Your task to perform on an android device: toggle notifications settings in the gmail app Image 0: 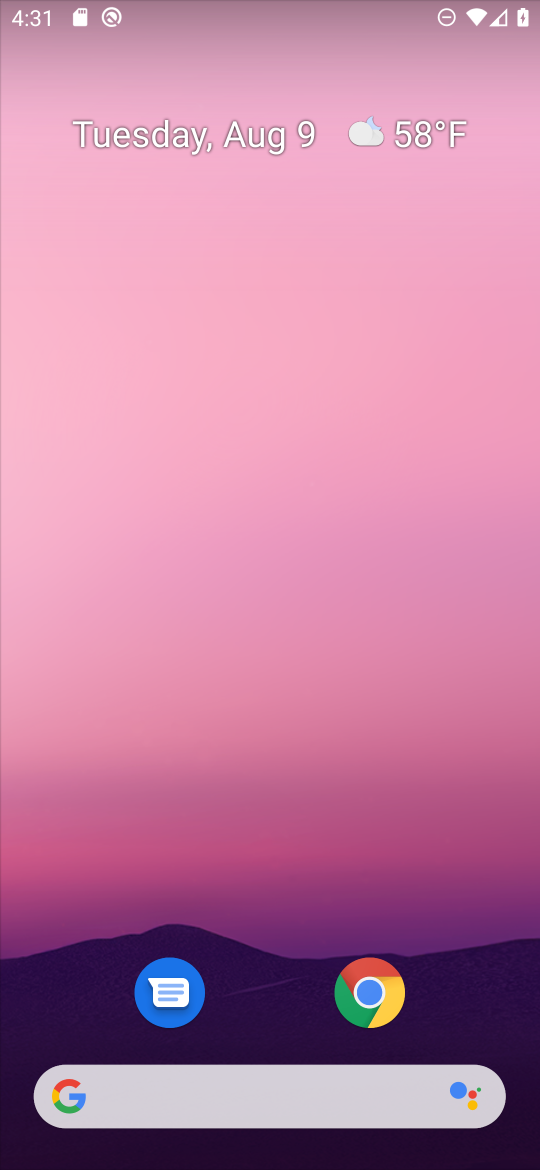
Step 0: drag from (398, 1102) to (382, 185)
Your task to perform on an android device: toggle notifications settings in the gmail app Image 1: 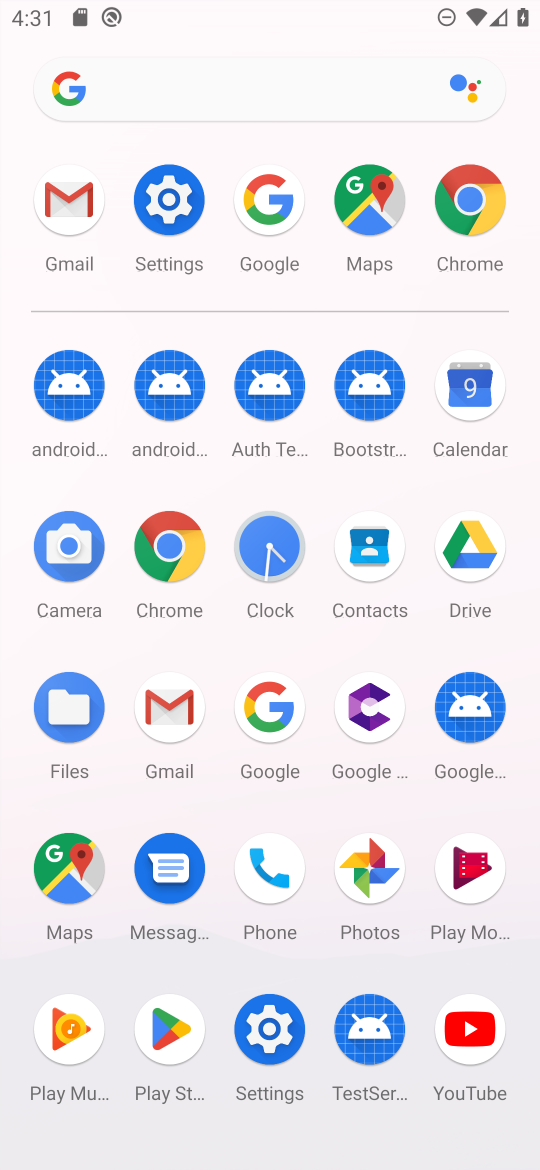
Step 1: click (169, 713)
Your task to perform on an android device: toggle notifications settings in the gmail app Image 2: 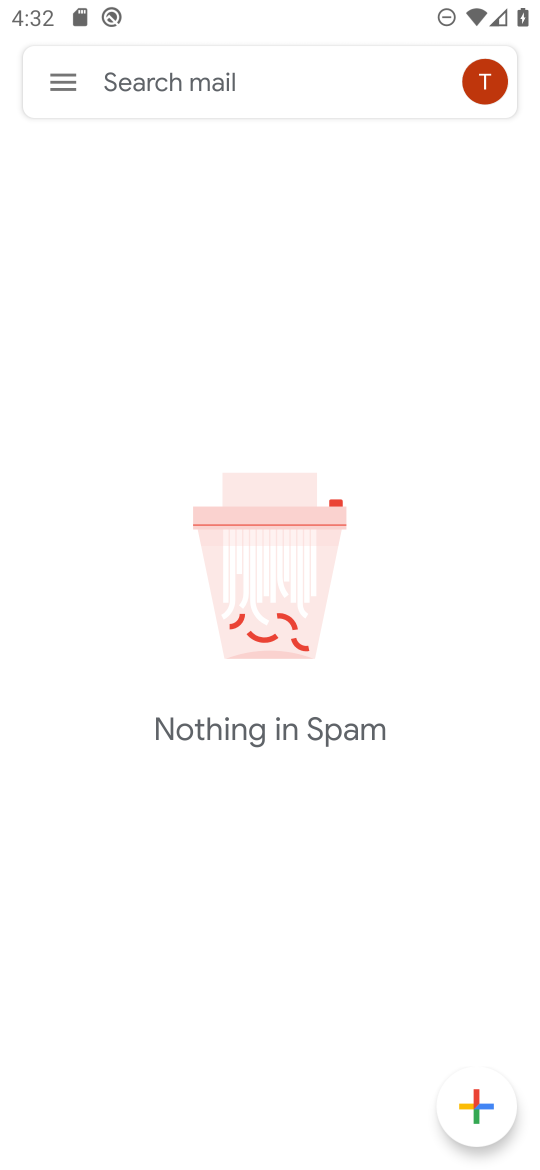
Step 2: click (68, 78)
Your task to perform on an android device: toggle notifications settings in the gmail app Image 3: 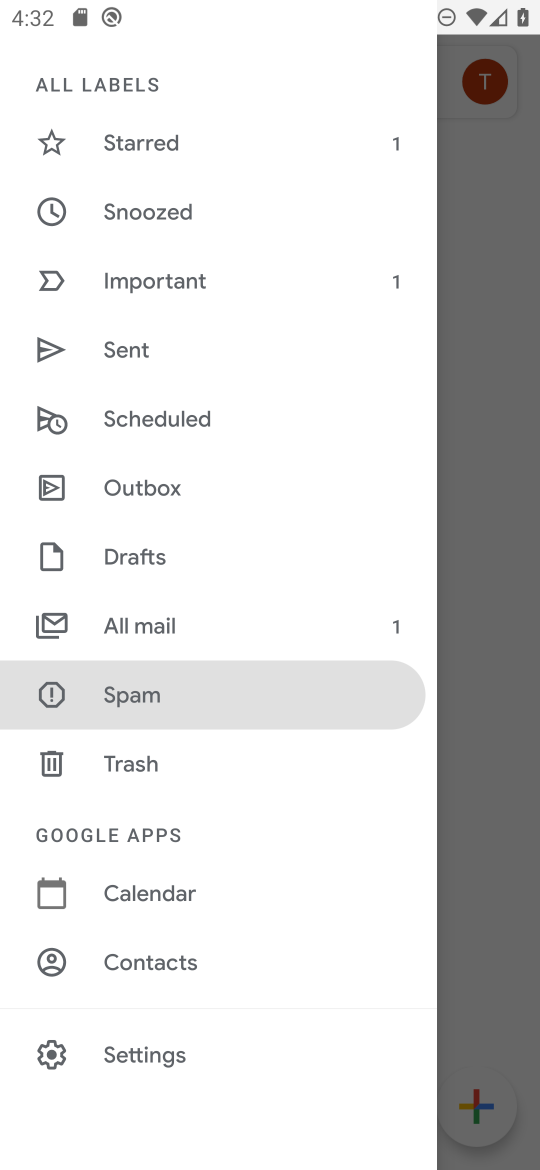
Step 3: click (168, 1054)
Your task to perform on an android device: toggle notifications settings in the gmail app Image 4: 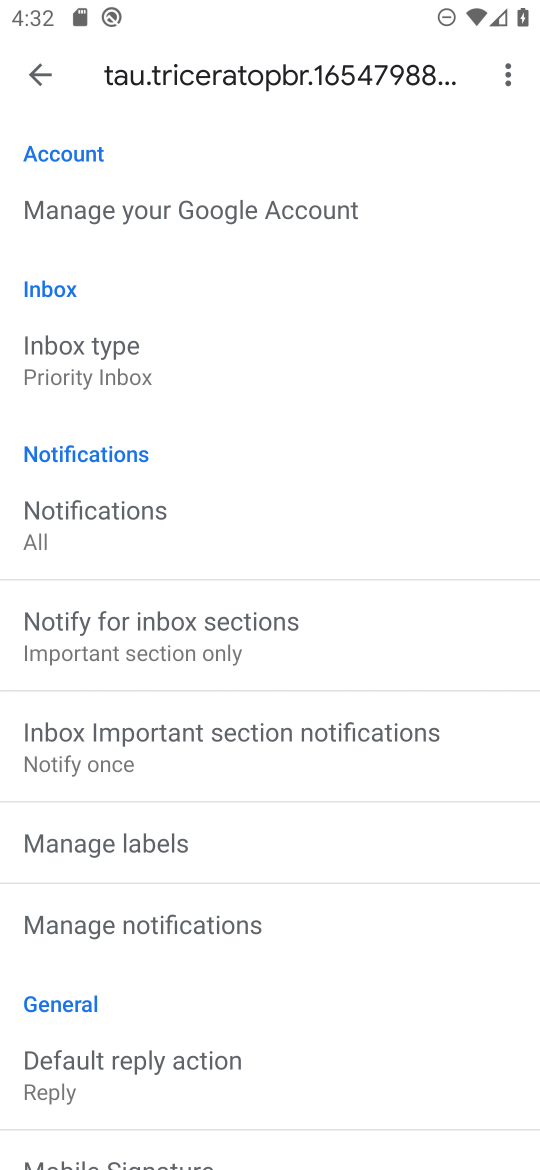
Step 4: click (118, 901)
Your task to perform on an android device: toggle notifications settings in the gmail app Image 5: 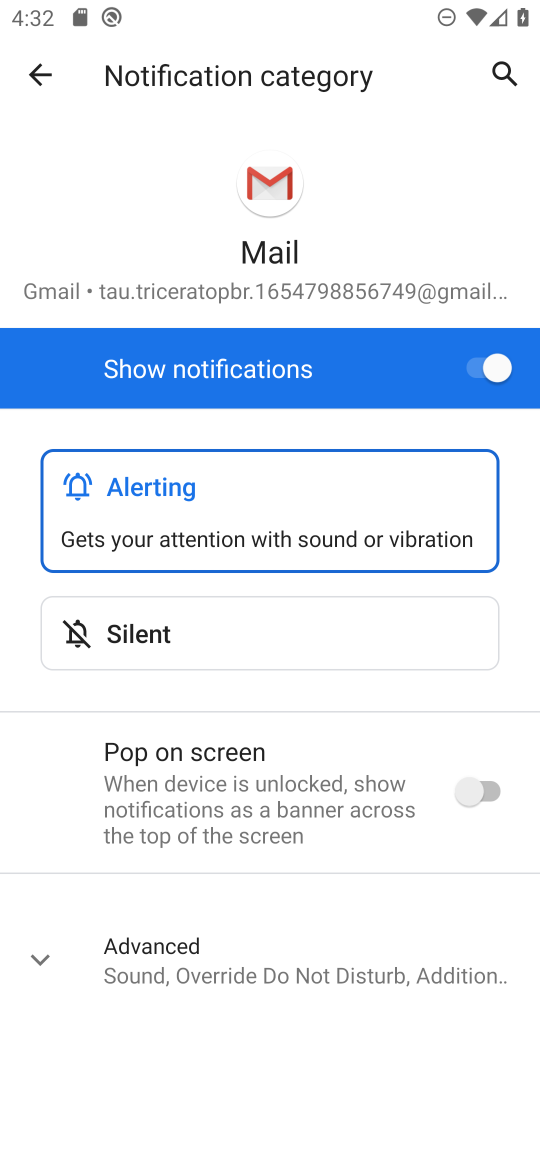
Step 5: click (489, 381)
Your task to perform on an android device: toggle notifications settings in the gmail app Image 6: 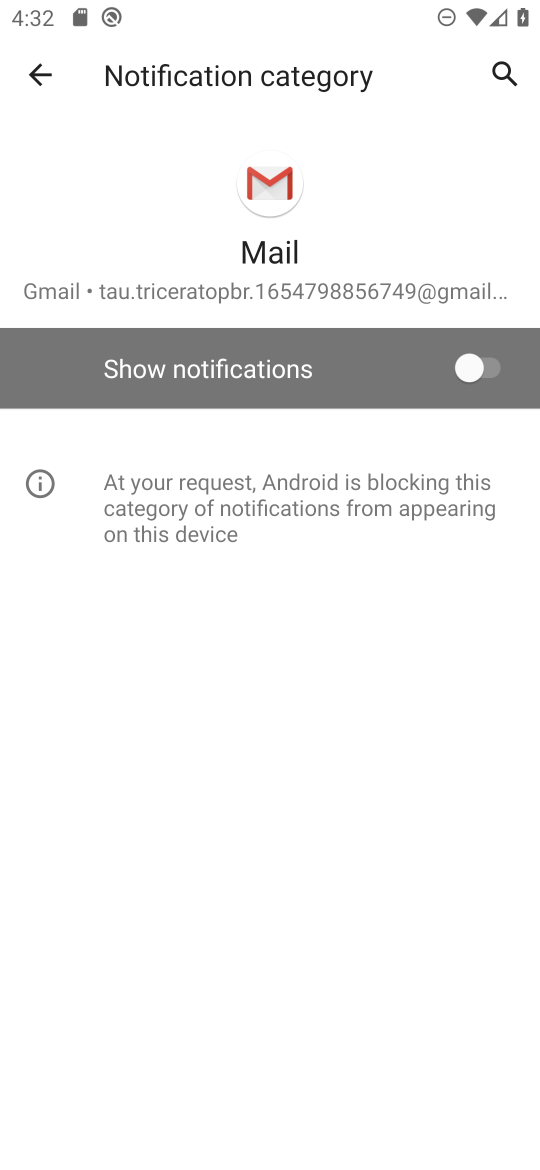
Step 6: task complete